Your task to perform on an android device: Is it going to rain tomorrow? Image 0: 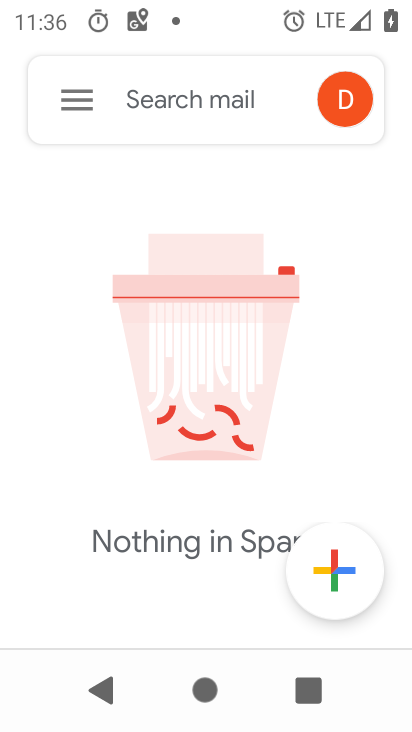
Step 0: press home button
Your task to perform on an android device: Is it going to rain tomorrow? Image 1: 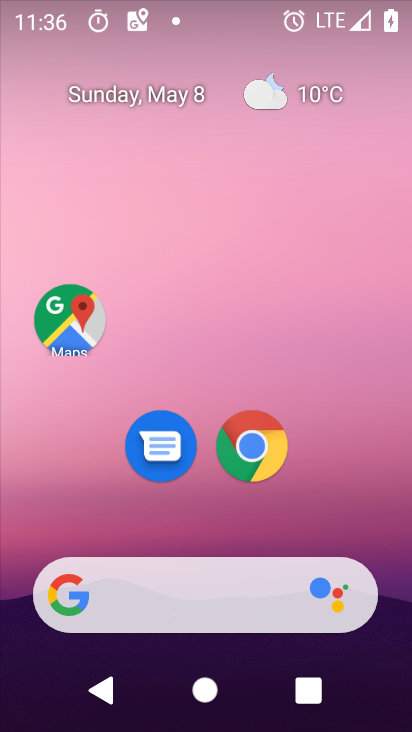
Step 1: click (314, 92)
Your task to perform on an android device: Is it going to rain tomorrow? Image 2: 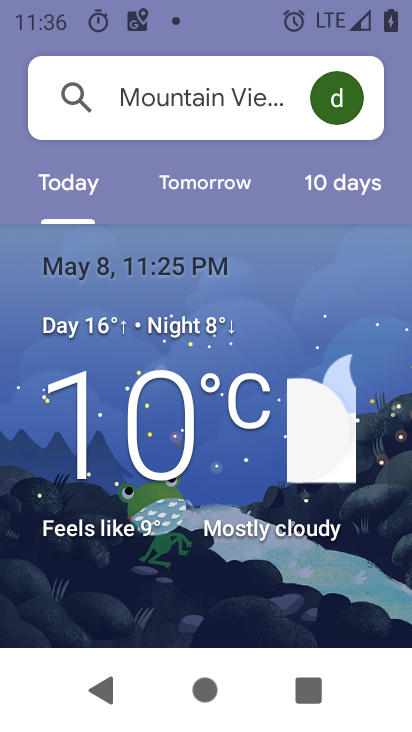
Step 2: click (183, 187)
Your task to perform on an android device: Is it going to rain tomorrow? Image 3: 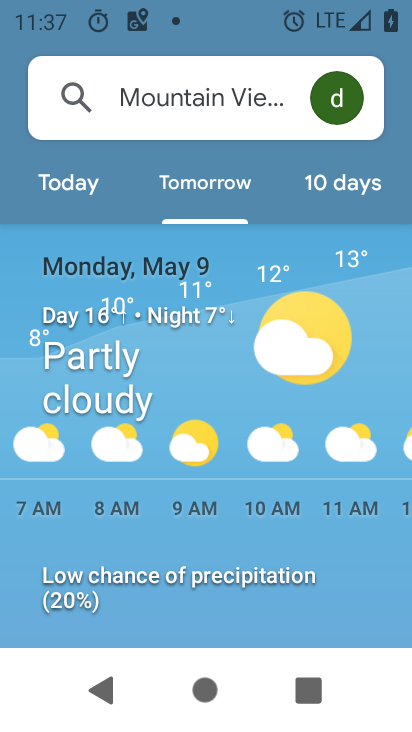
Step 3: task complete